Your task to perform on an android device: Open Youtube and go to "Your channel" Image 0: 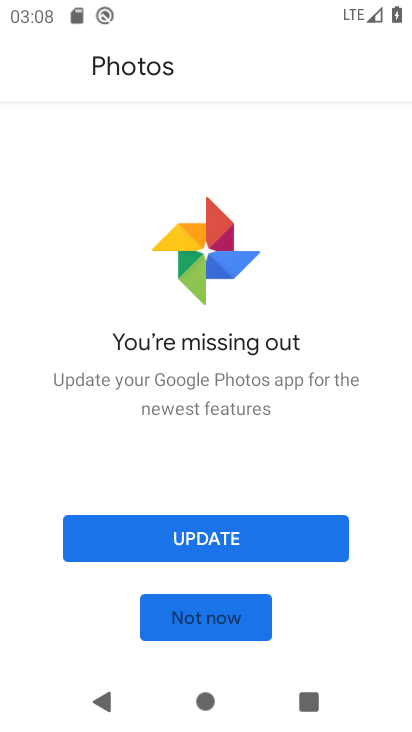
Step 0: click (248, 623)
Your task to perform on an android device: Open Youtube and go to "Your channel" Image 1: 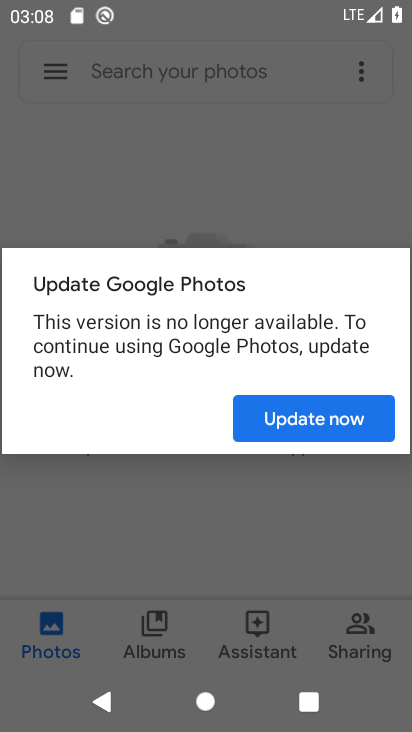
Step 1: press home button
Your task to perform on an android device: Open Youtube and go to "Your channel" Image 2: 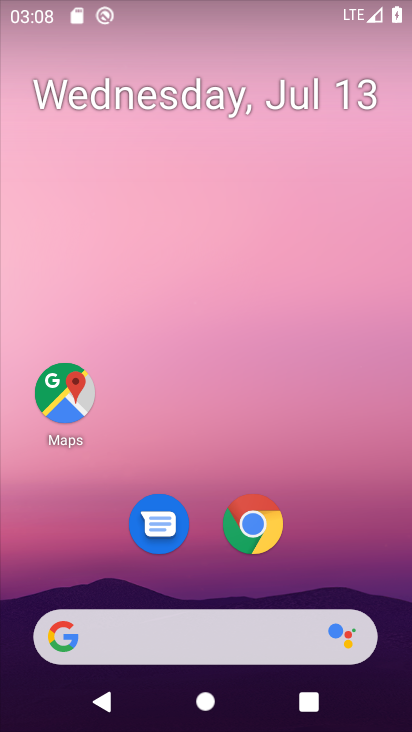
Step 2: drag from (312, 559) to (295, 121)
Your task to perform on an android device: Open Youtube and go to "Your channel" Image 3: 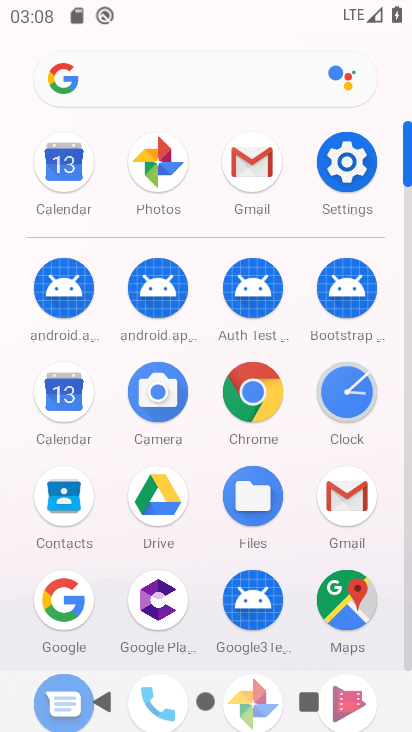
Step 3: drag from (211, 550) to (211, 111)
Your task to perform on an android device: Open Youtube and go to "Your channel" Image 4: 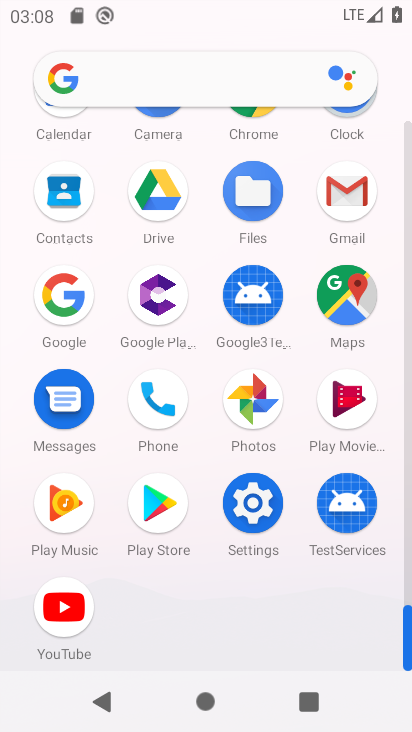
Step 4: click (77, 612)
Your task to perform on an android device: Open Youtube and go to "Your channel" Image 5: 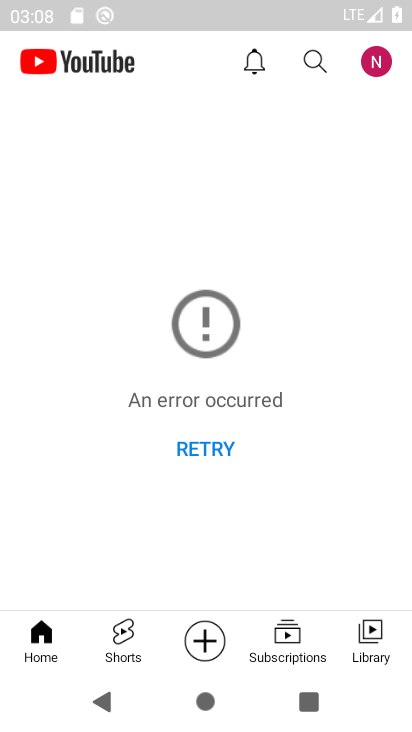
Step 5: click (380, 60)
Your task to perform on an android device: Open Youtube and go to "Your channel" Image 6: 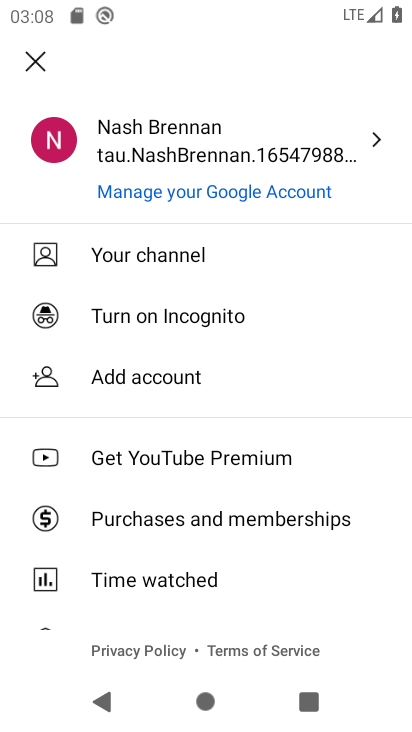
Step 6: click (193, 247)
Your task to perform on an android device: Open Youtube and go to "Your channel" Image 7: 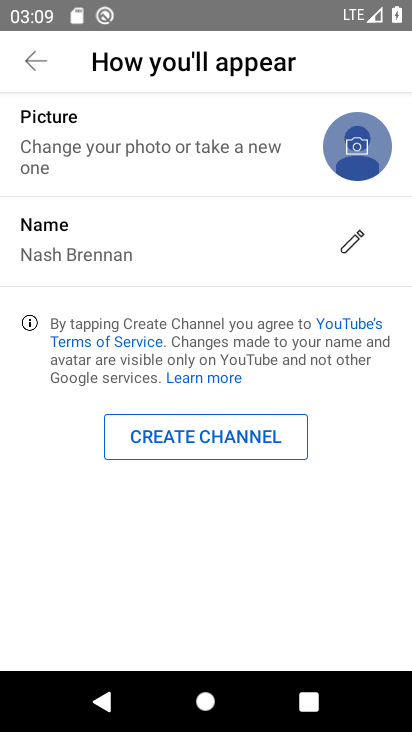
Step 7: task complete